Your task to perform on an android device: Is it going to rain today? Image 0: 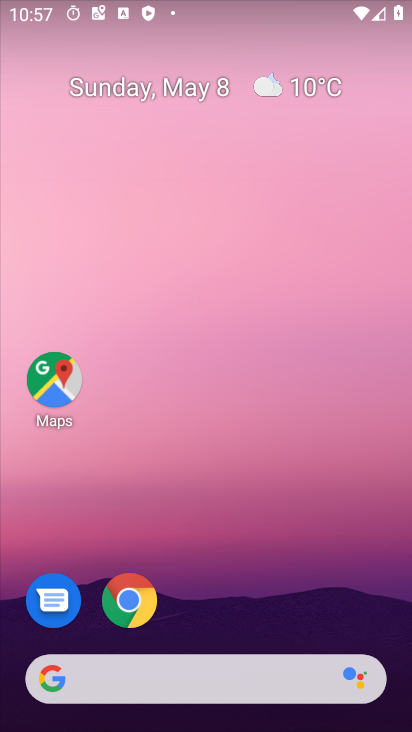
Step 0: drag from (313, 665) to (310, 173)
Your task to perform on an android device: Is it going to rain today? Image 1: 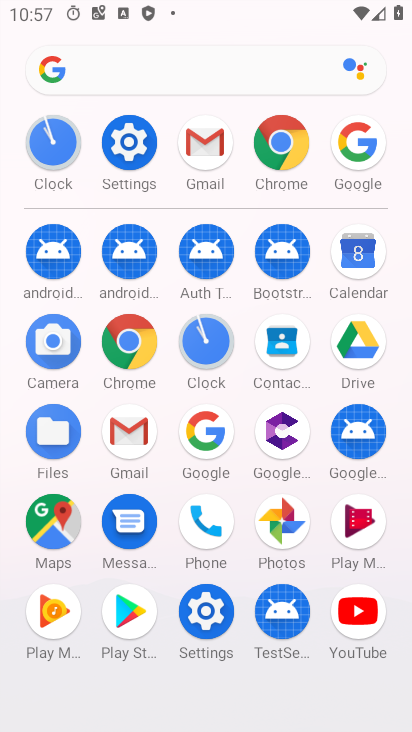
Step 1: click (211, 459)
Your task to perform on an android device: Is it going to rain today? Image 2: 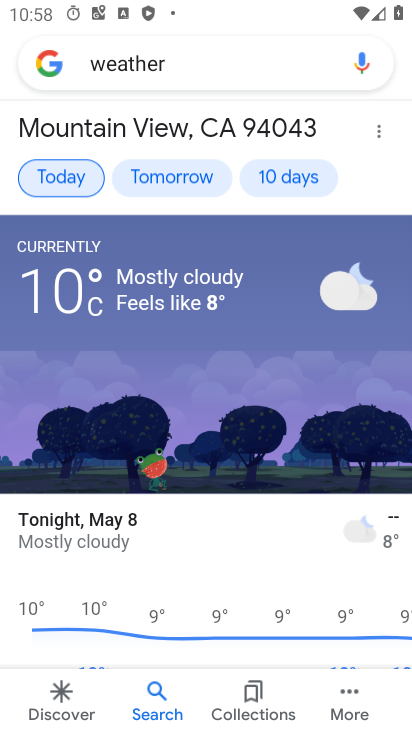
Step 2: task complete